Your task to perform on an android device: When is my next meeting? Image 0: 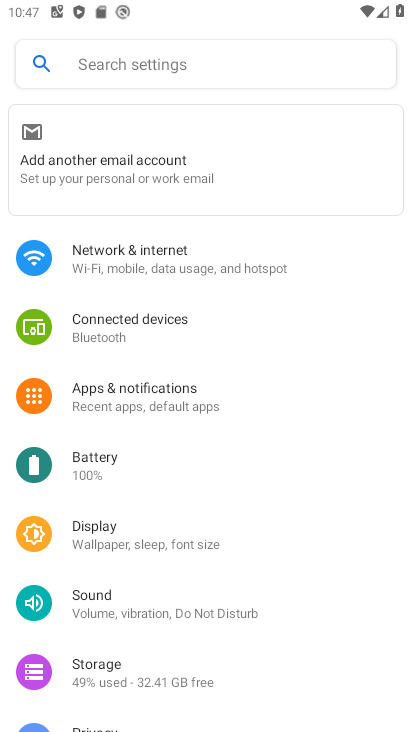
Step 0: press home button
Your task to perform on an android device: When is my next meeting? Image 1: 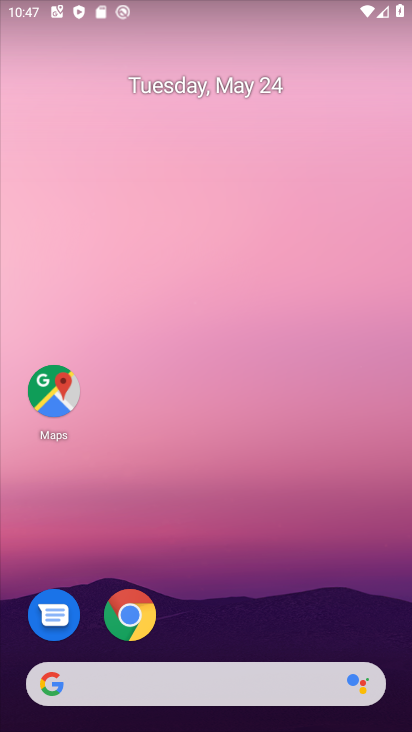
Step 1: drag from (314, 500) to (318, 114)
Your task to perform on an android device: When is my next meeting? Image 2: 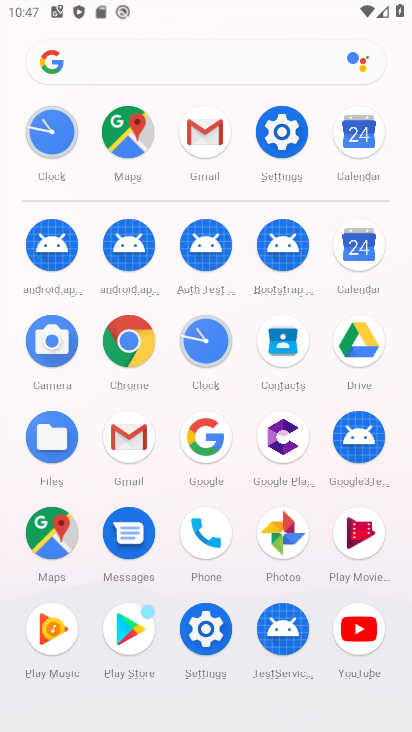
Step 2: click (372, 261)
Your task to perform on an android device: When is my next meeting? Image 3: 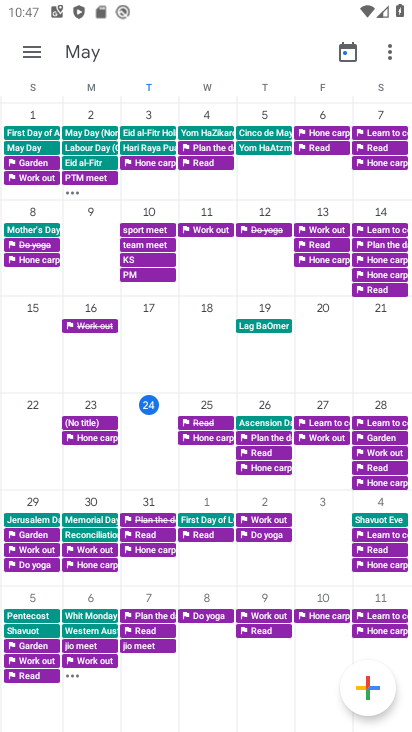
Step 3: click (35, 59)
Your task to perform on an android device: When is my next meeting? Image 4: 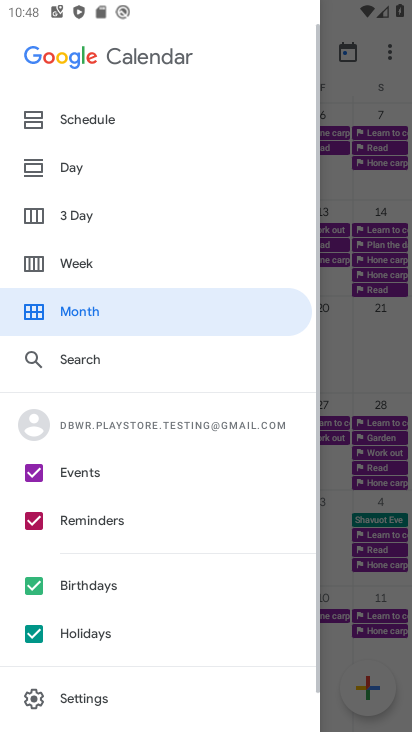
Step 4: click (68, 121)
Your task to perform on an android device: When is my next meeting? Image 5: 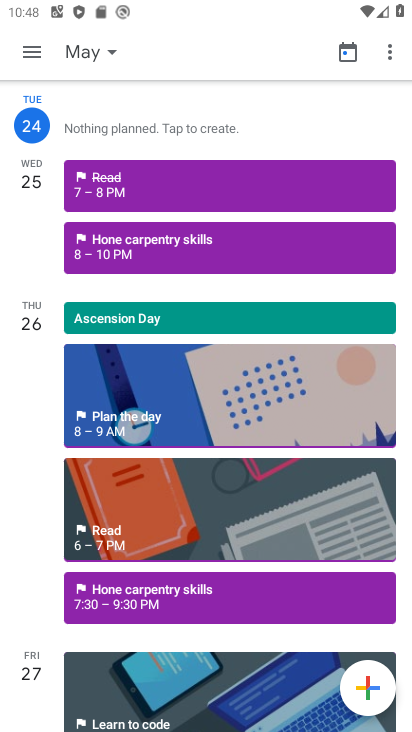
Step 5: task complete